Your task to perform on an android device: turn smart compose on in the gmail app Image 0: 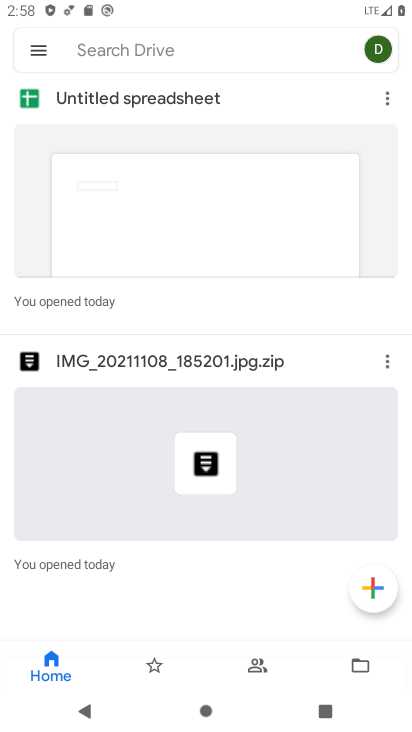
Step 0: press home button
Your task to perform on an android device: turn smart compose on in the gmail app Image 1: 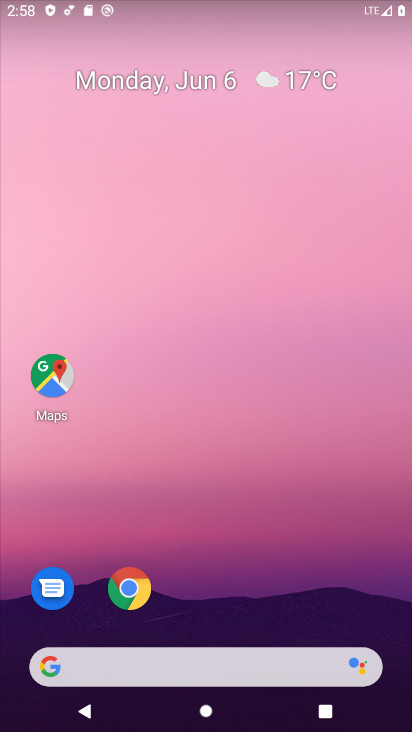
Step 1: drag from (218, 648) to (249, 170)
Your task to perform on an android device: turn smart compose on in the gmail app Image 2: 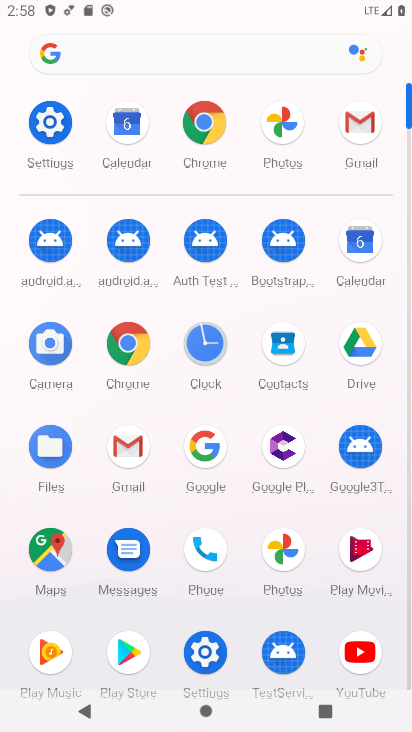
Step 2: click (125, 451)
Your task to perform on an android device: turn smart compose on in the gmail app Image 3: 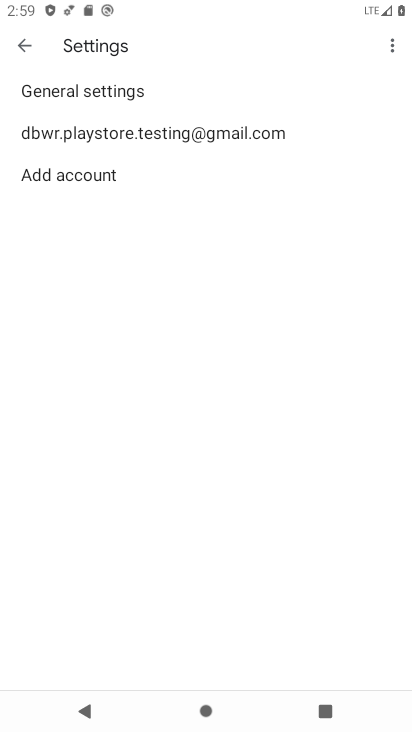
Step 3: click (158, 128)
Your task to perform on an android device: turn smart compose on in the gmail app Image 4: 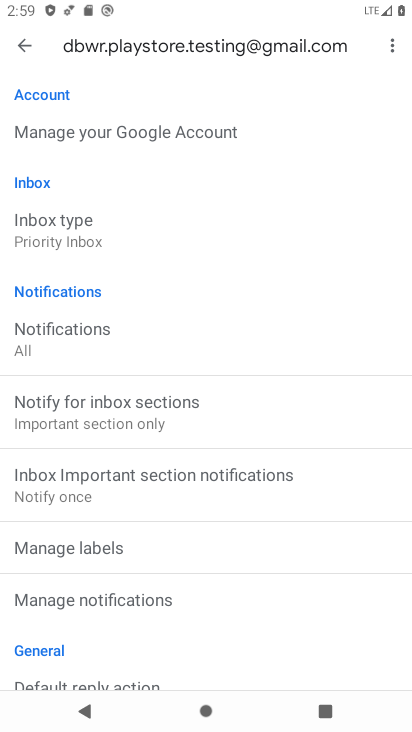
Step 4: task complete